Your task to perform on an android device: search for starred emails in the gmail app Image 0: 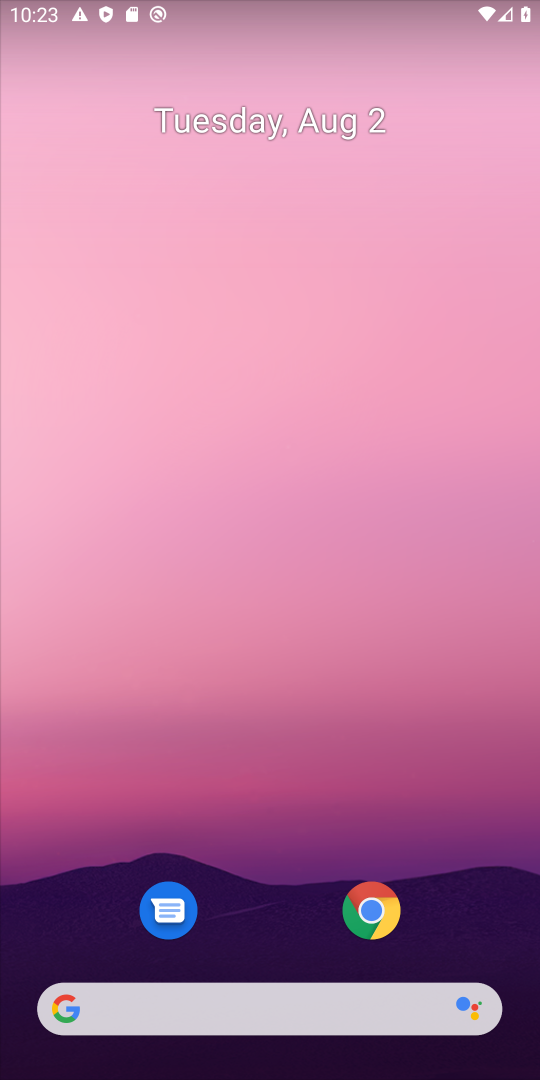
Step 0: drag from (297, 972) to (210, 127)
Your task to perform on an android device: search for starred emails in the gmail app Image 1: 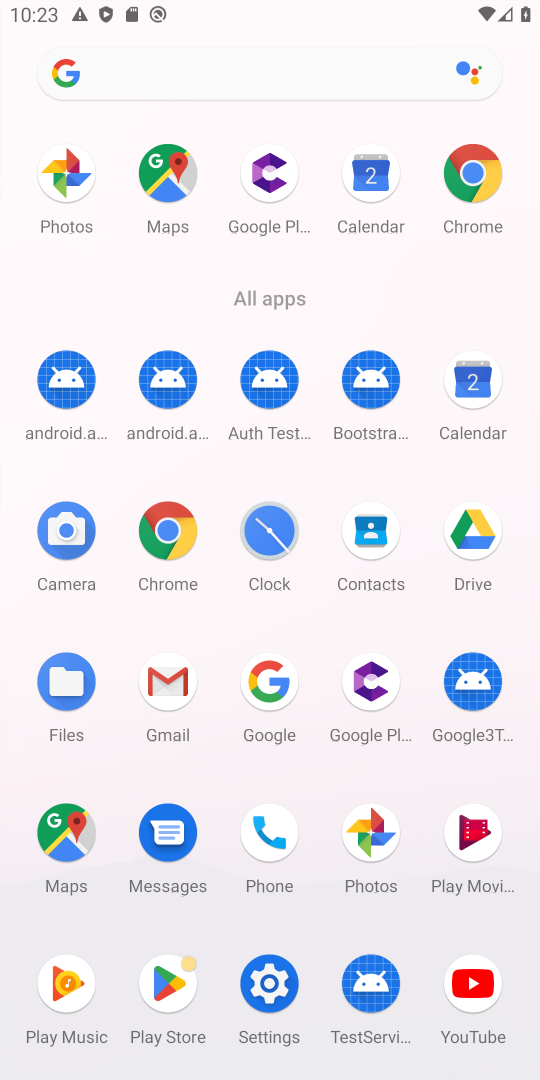
Step 1: click (173, 682)
Your task to perform on an android device: search for starred emails in the gmail app Image 2: 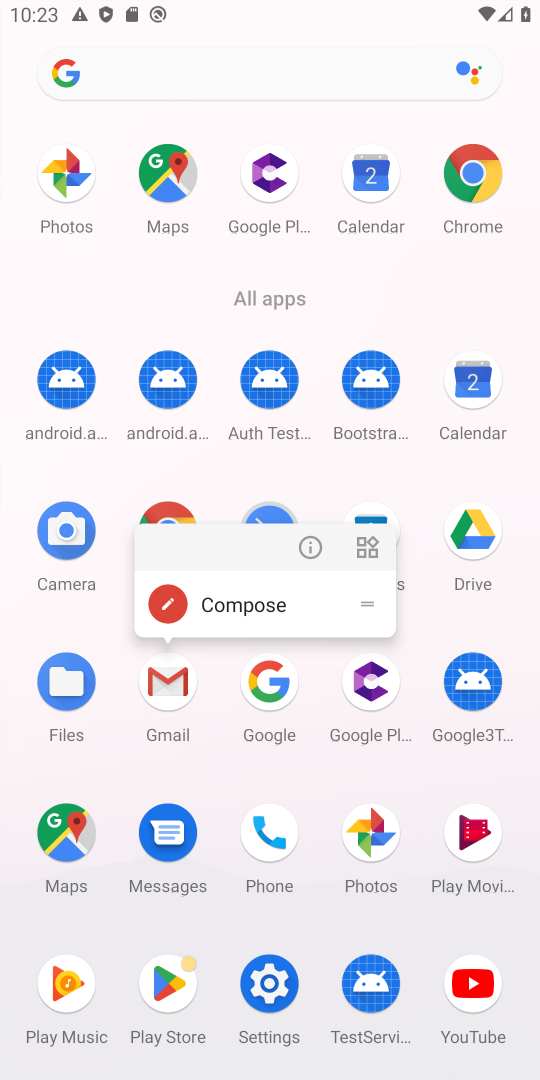
Step 2: click (165, 699)
Your task to perform on an android device: search for starred emails in the gmail app Image 3: 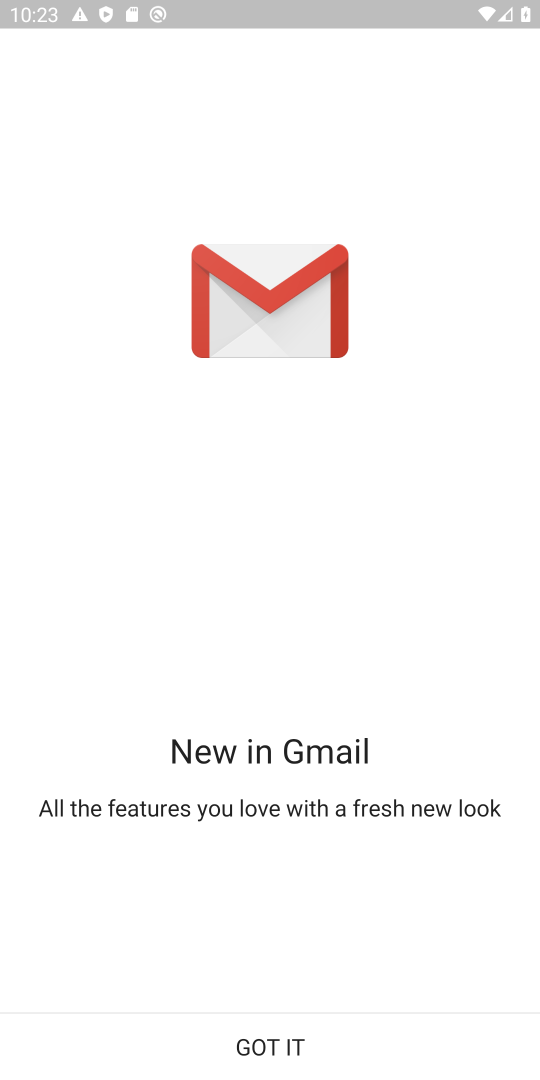
Step 3: click (312, 1066)
Your task to perform on an android device: search for starred emails in the gmail app Image 4: 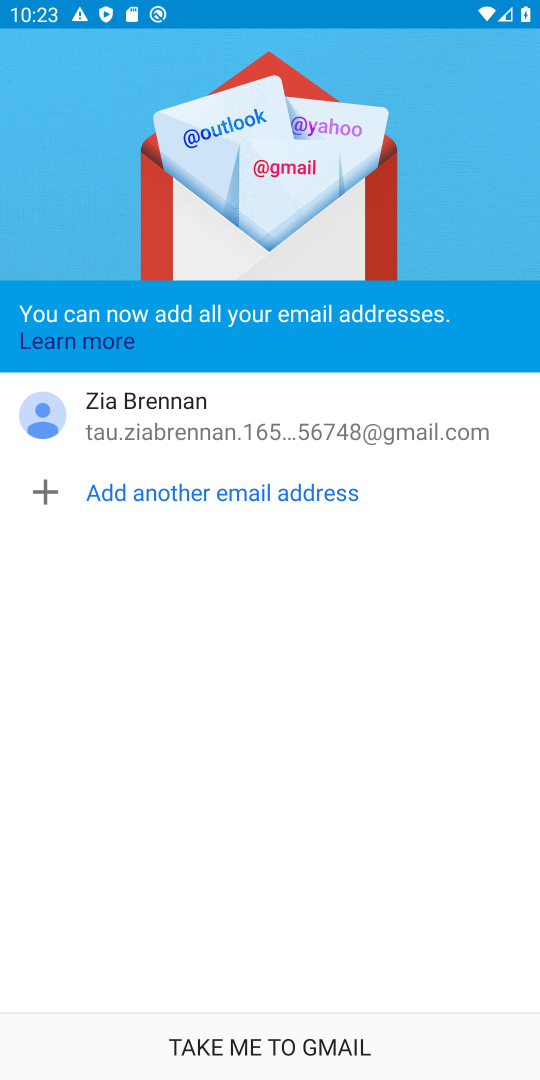
Step 4: click (291, 1038)
Your task to perform on an android device: search for starred emails in the gmail app Image 5: 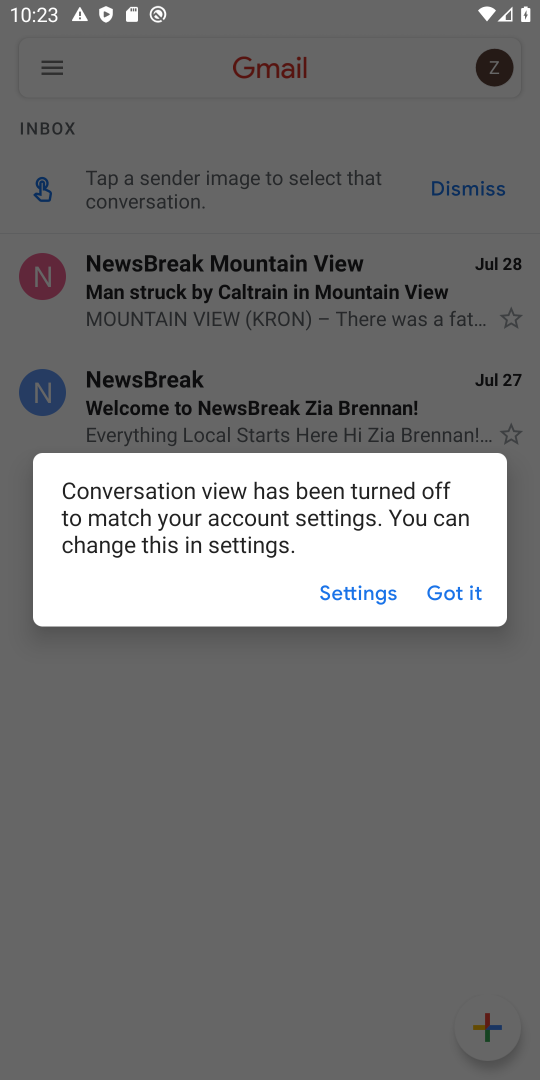
Step 5: click (469, 594)
Your task to perform on an android device: search for starred emails in the gmail app Image 6: 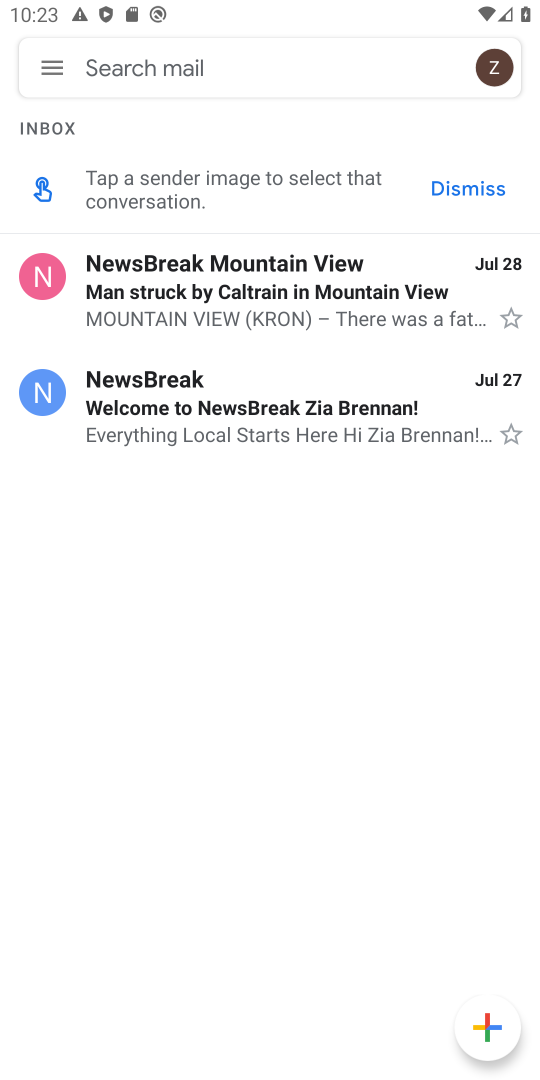
Step 6: click (42, 50)
Your task to perform on an android device: search for starred emails in the gmail app Image 7: 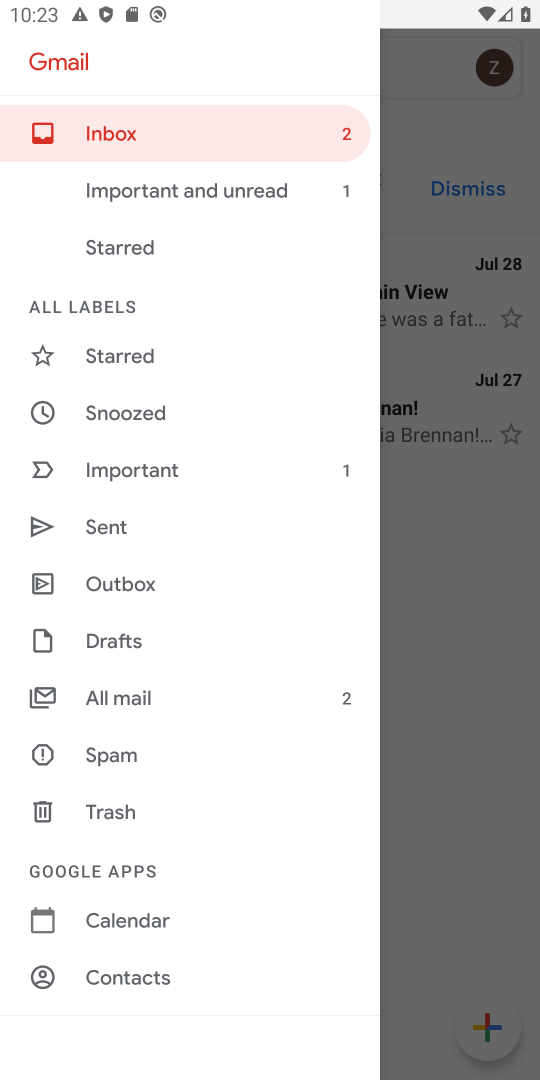
Step 7: click (117, 354)
Your task to perform on an android device: search for starred emails in the gmail app Image 8: 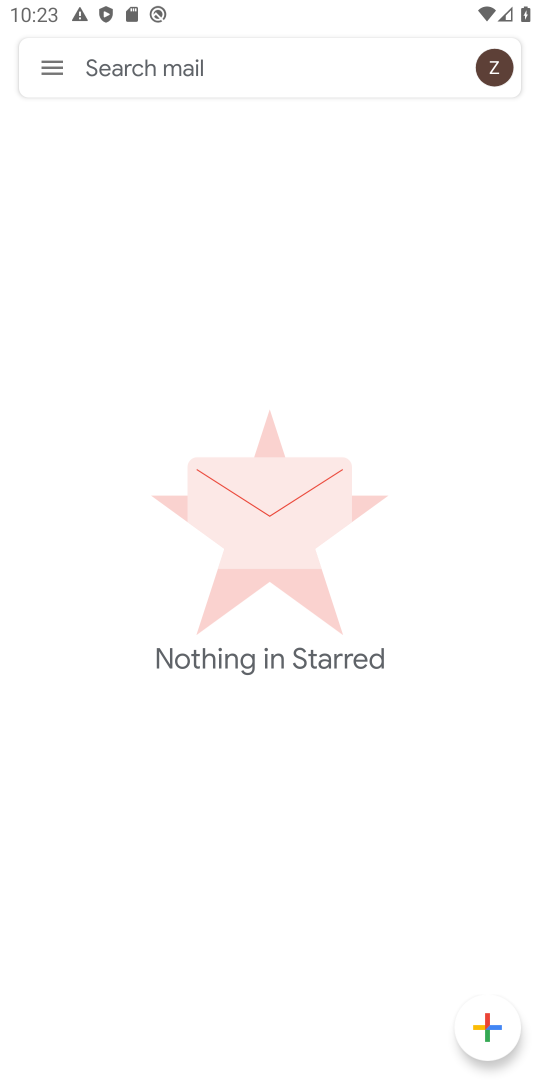
Step 8: task complete